Your task to perform on an android device: delete the emails in spam in the gmail app Image 0: 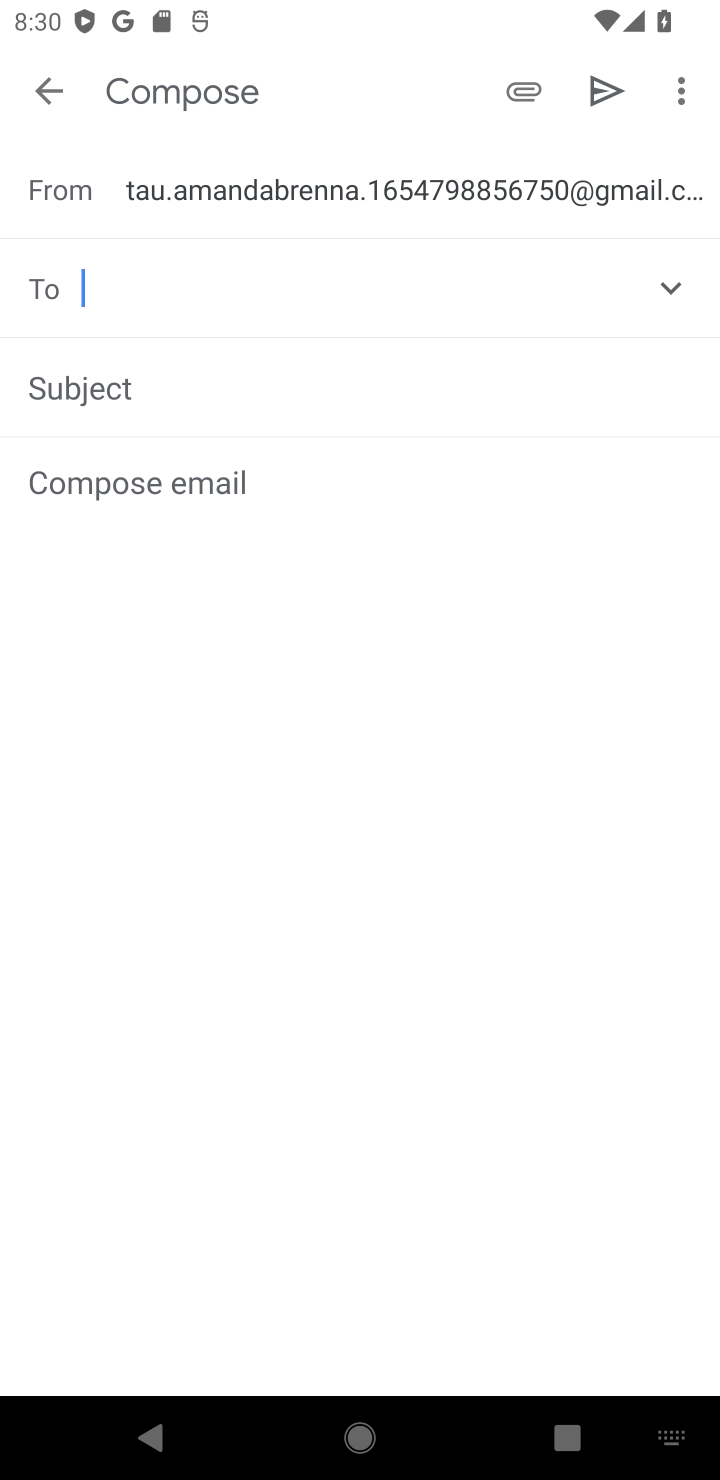
Step 0: press home button
Your task to perform on an android device: delete the emails in spam in the gmail app Image 1: 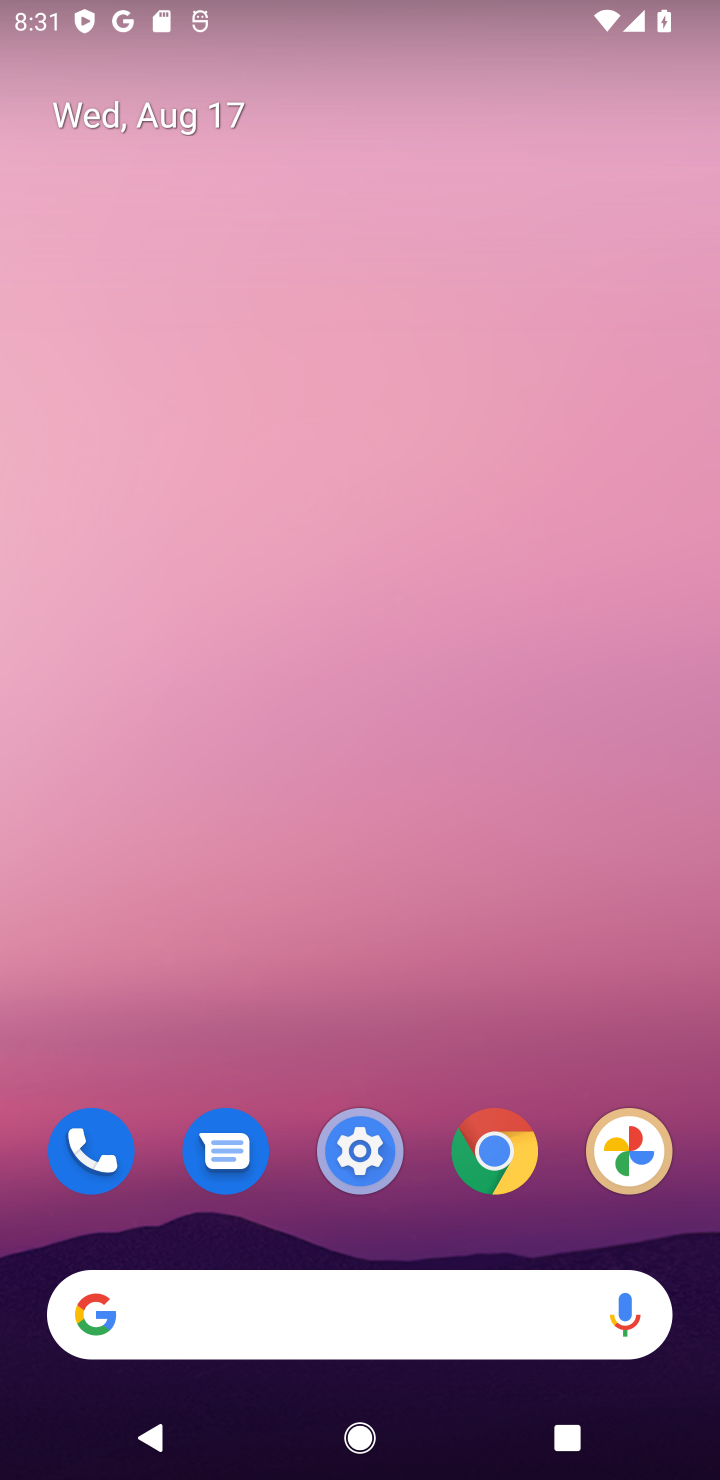
Step 1: click (303, 82)
Your task to perform on an android device: delete the emails in spam in the gmail app Image 2: 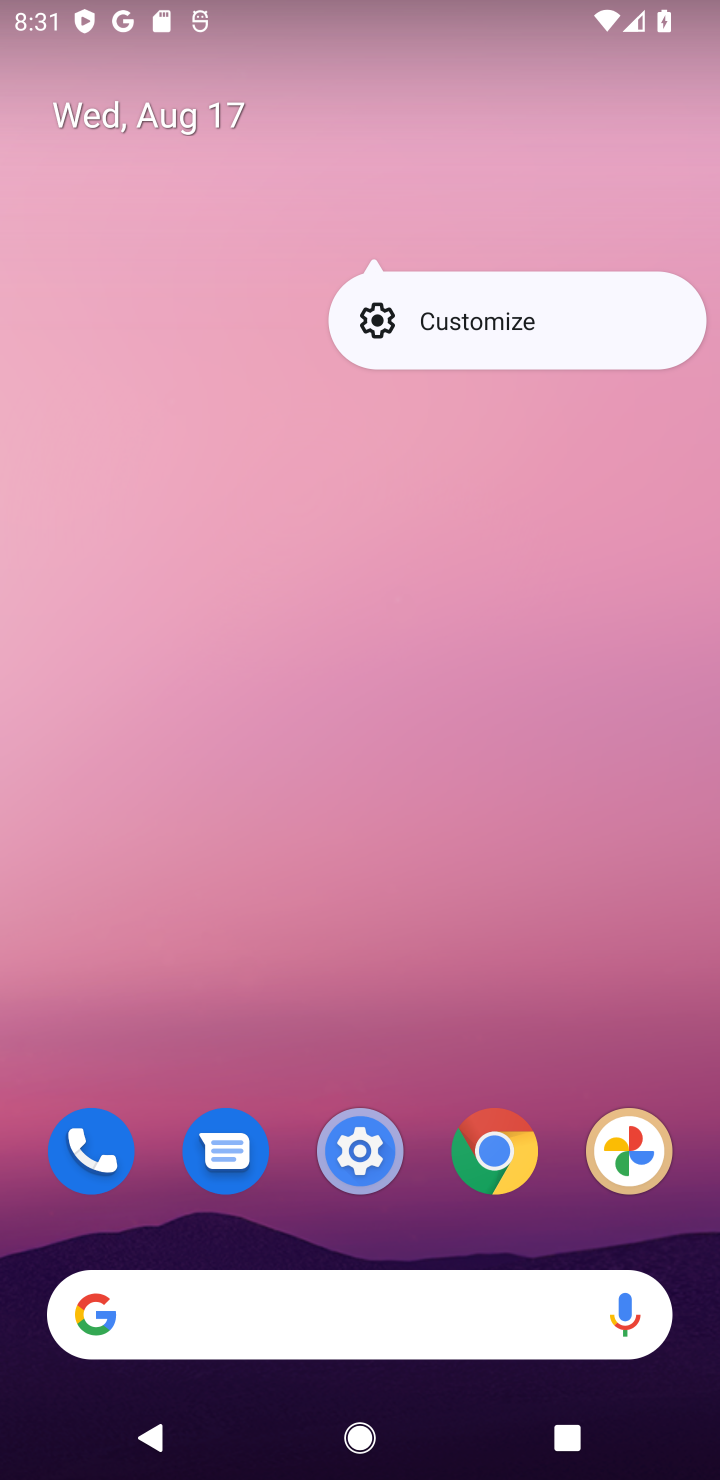
Step 2: drag from (403, 751) to (151, 195)
Your task to perform on an android device: delete the emails in spam in the gmail app Image 3: 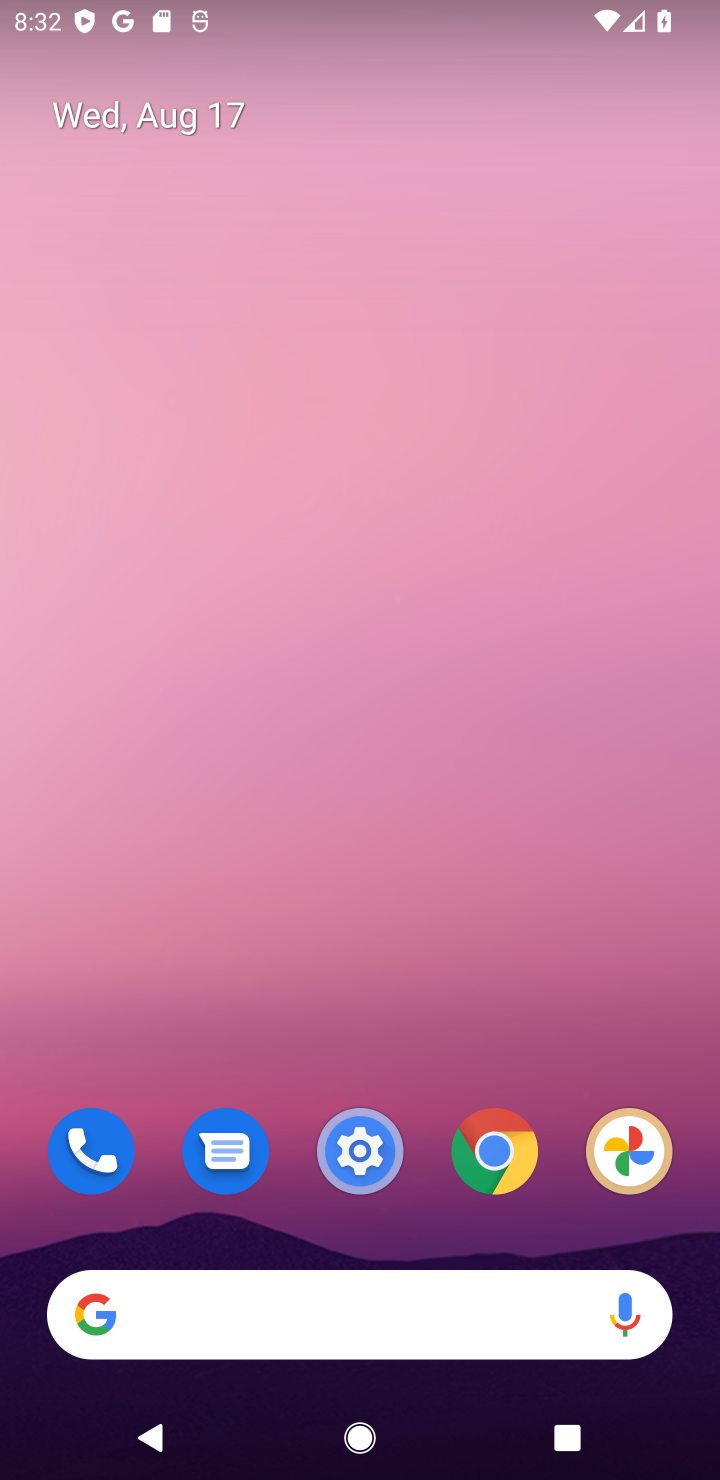
Step 3: drag from (322, 1217) to (375, 187)
Your task to perform on an android device: delete the emails in spam in the gmail app Image 4: 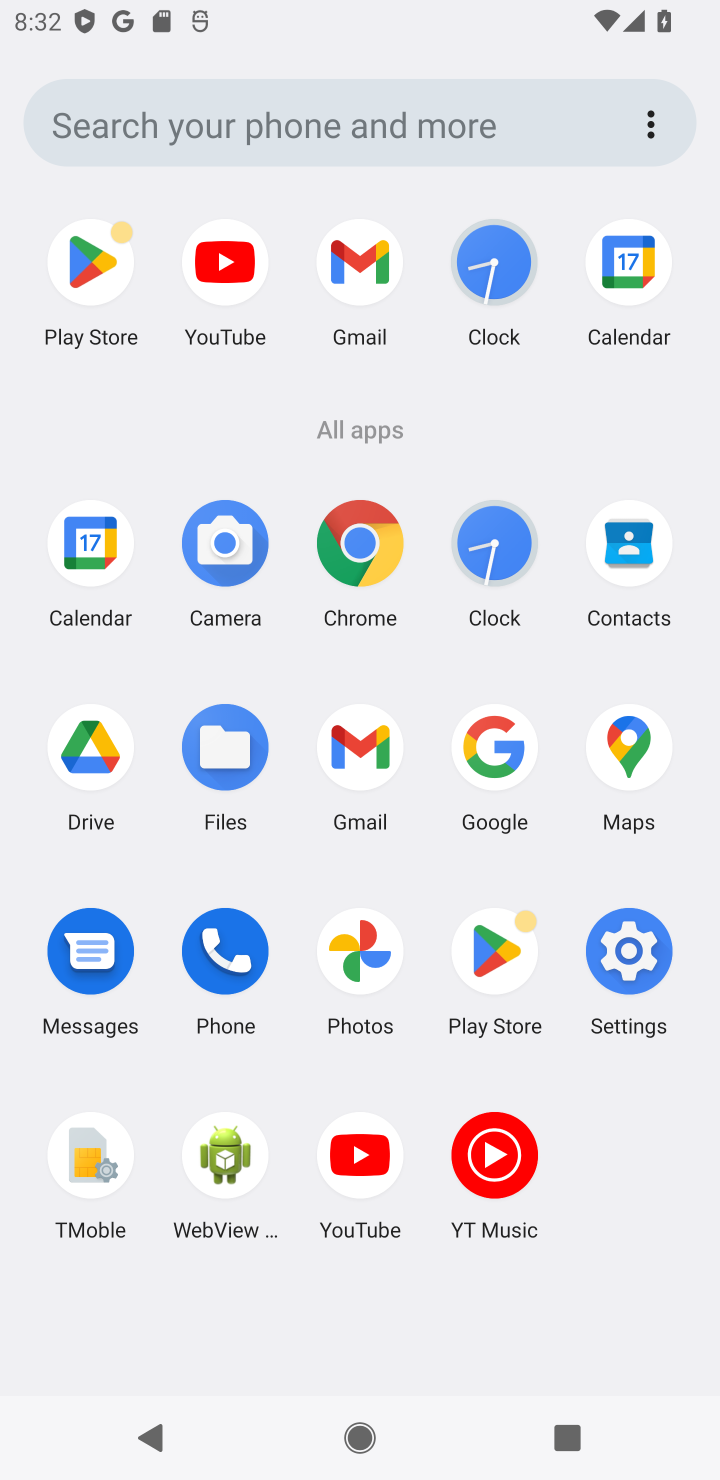
Step 4: click (373, 252)
Your task to perform on an android device: delete the emails in spam in the gmail app Image 5: 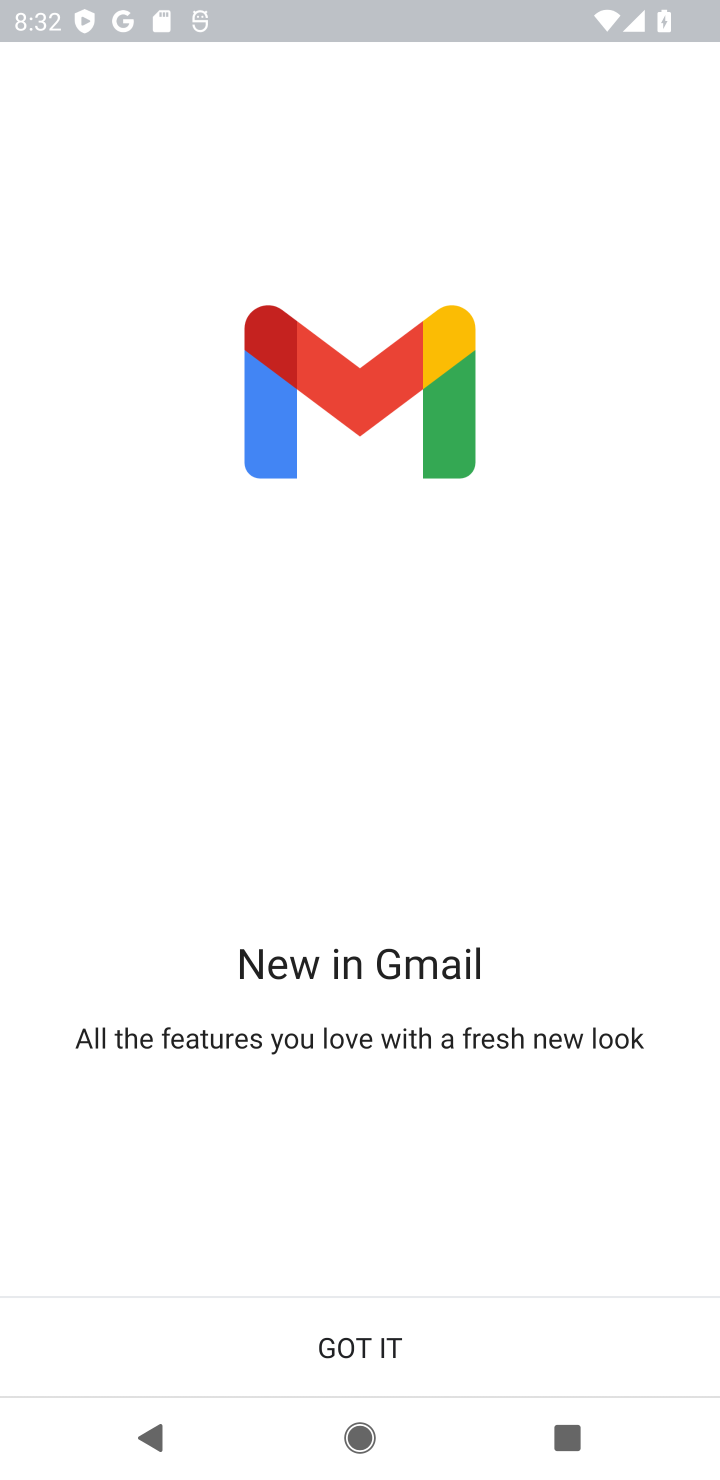
Step 5: click (373, 1313)
Your task to perform on an android device: delete the emails in spam in the gmail app Image 6: 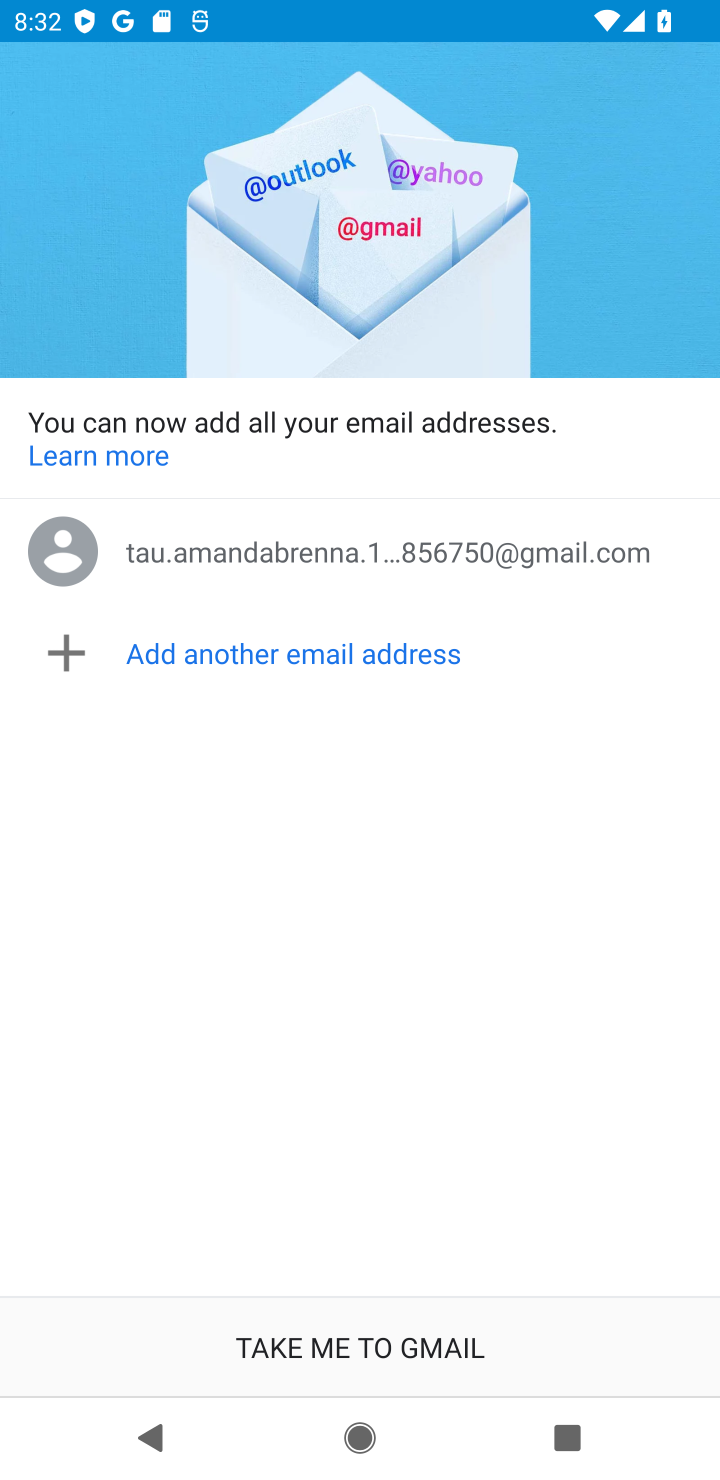
Step 6: click (373, 1313)
Your task to perform on an android device: delete the emails in spam in the gmail app Image 7: 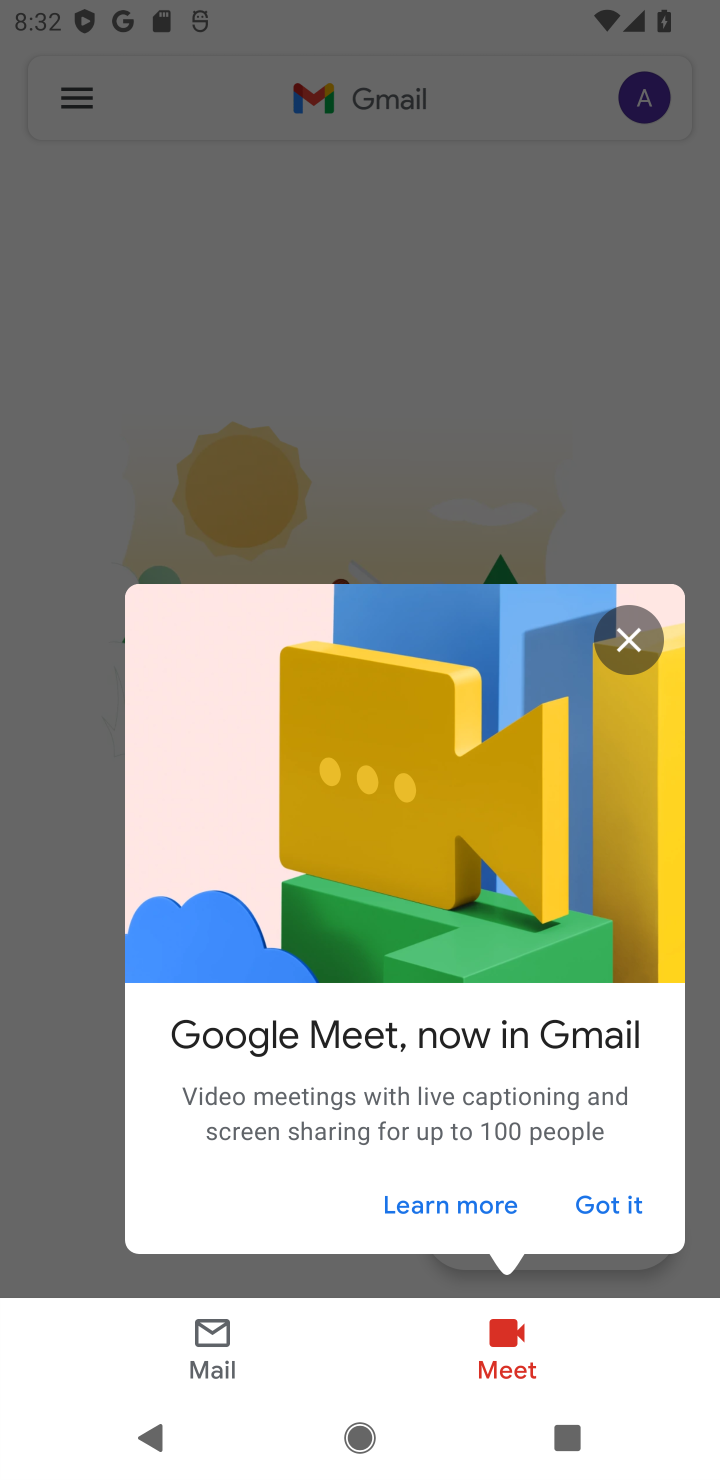
Step 7: click (610, 1202)
Your task to perform on an android device: delete the emails in spam in the gmail app Image 8: 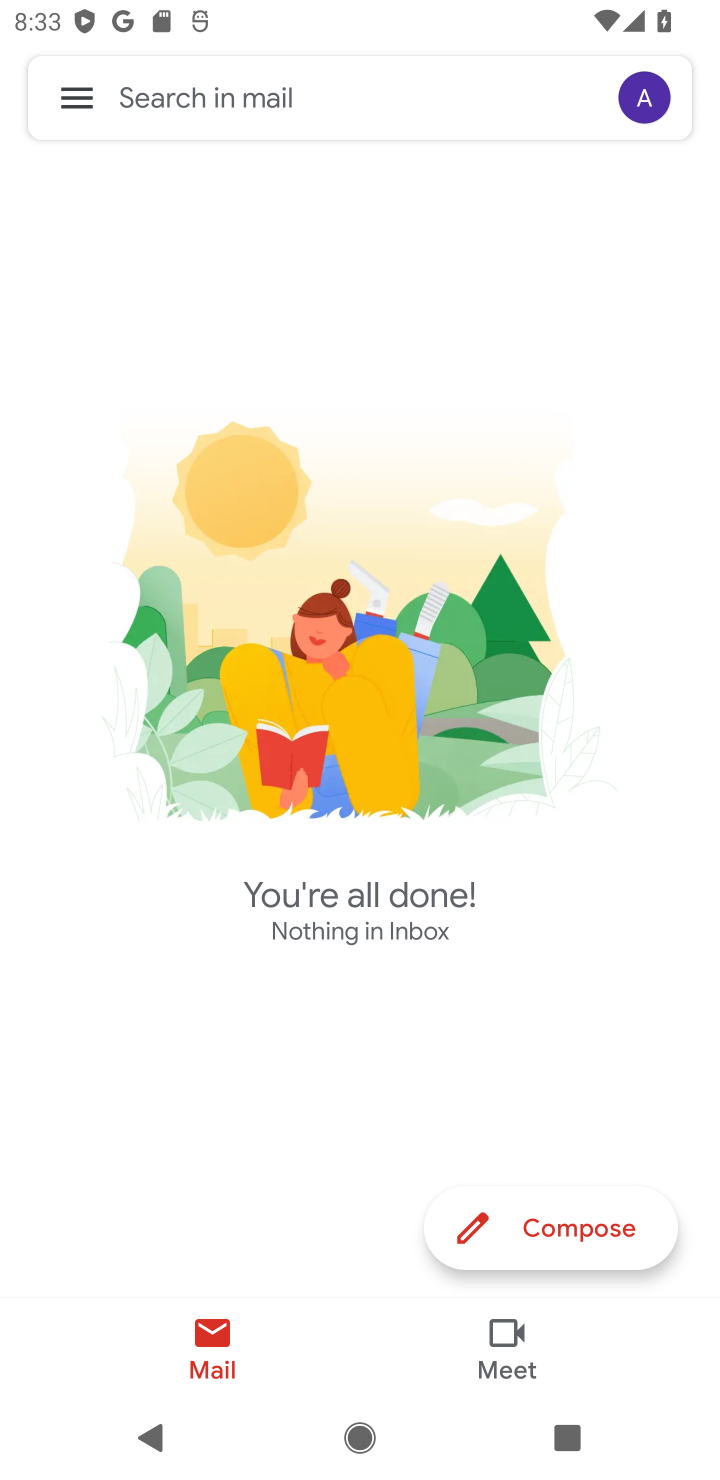
Step 8: click (62, 99)
Your task to perform on an android device: delete the emails in spam in the gmail app Image 9: 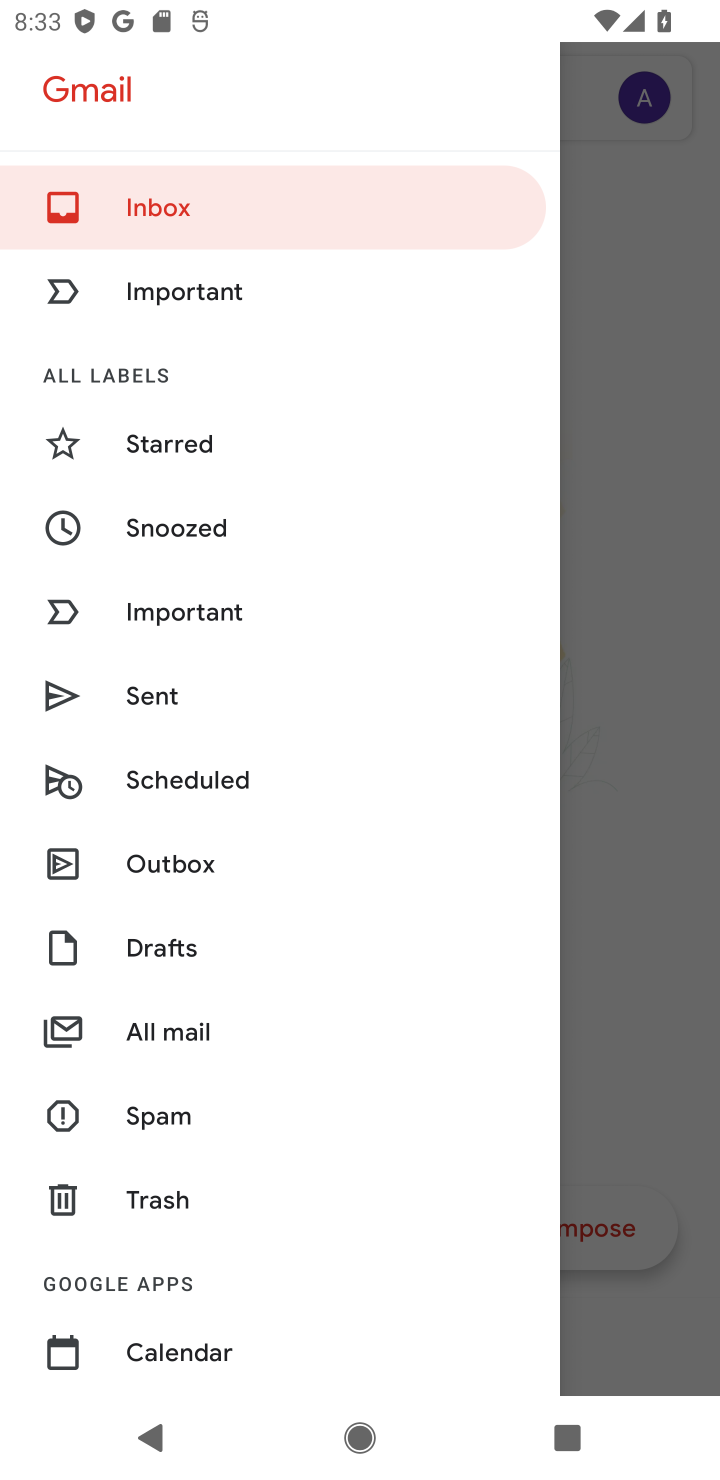
Step 9: click (183, 1037)
Your task to perform on an android device: delete the emails in spam in the gmail app Image 10: 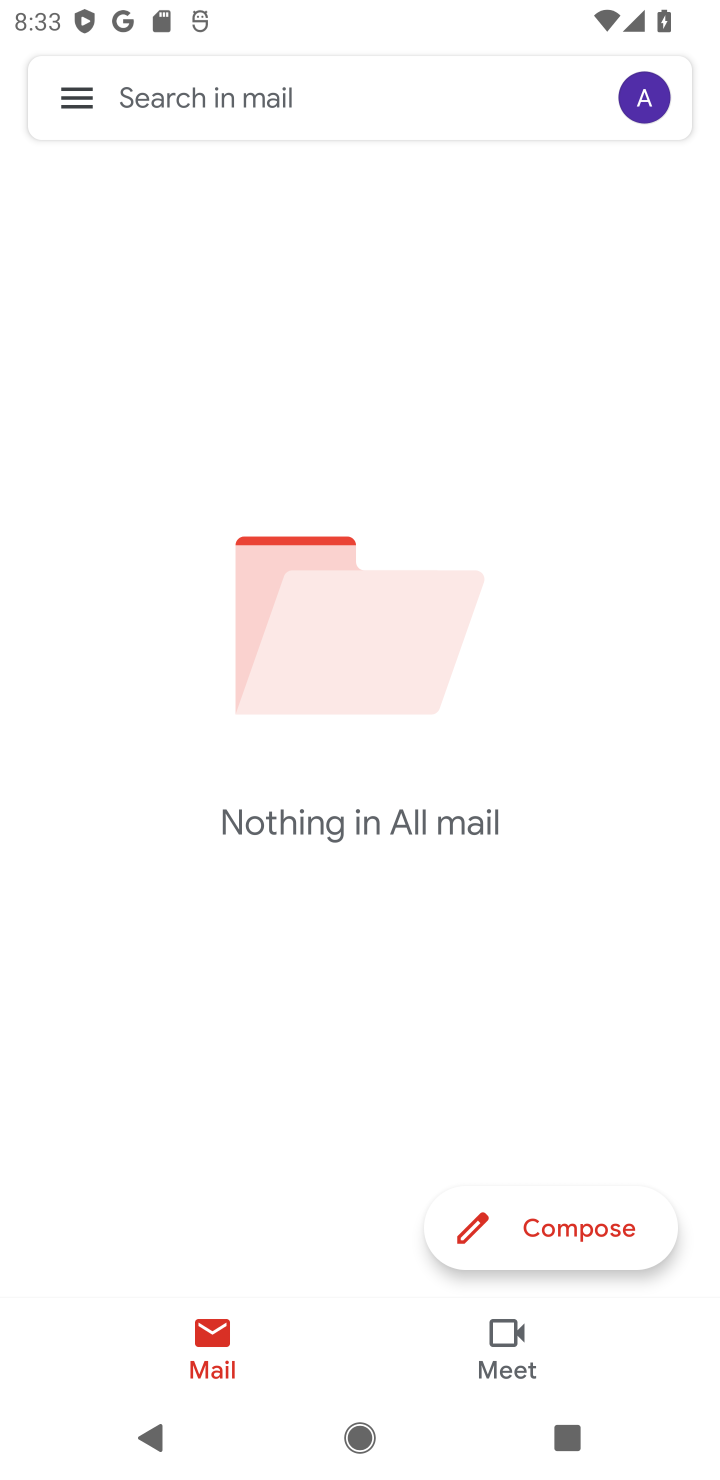
Step 10: click (75, 103)
Your task to perform on an android device: delete the emails in spam in the gmail app Image 11: 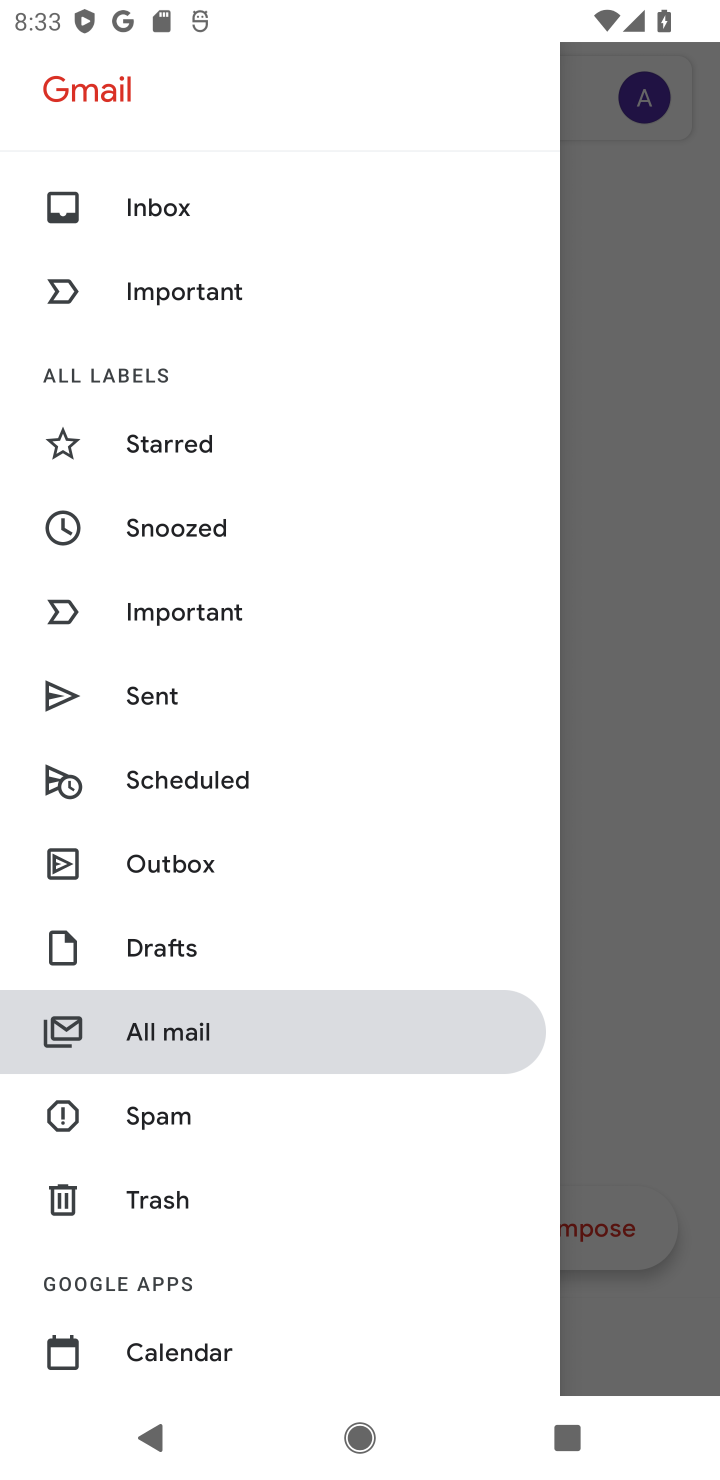
Step 11: click (169, 1115)
Your task to perform on an android device: delete the emails in spam in the gmail app Image 12: 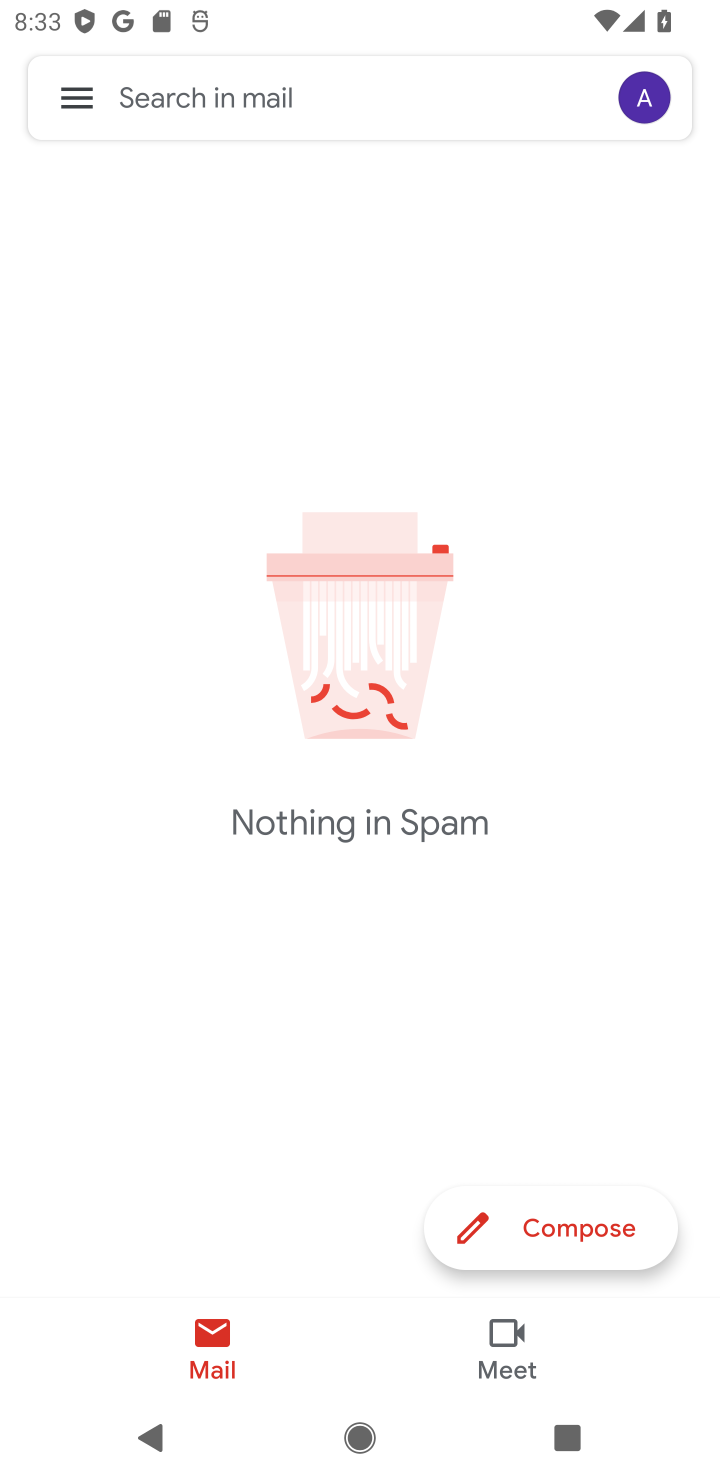
Step 12: task complete